Your task to perform on an android device: check out phone information Image 0: 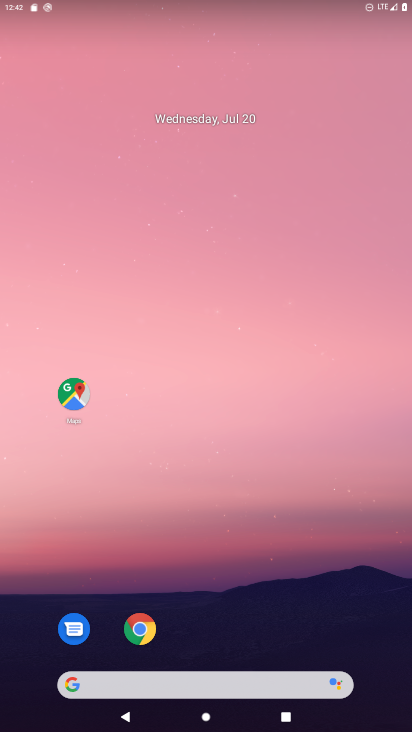
Step 0: drag from (173, 635) to (207, 207)
Your task to perform on an android device: check out phone information Image 1: 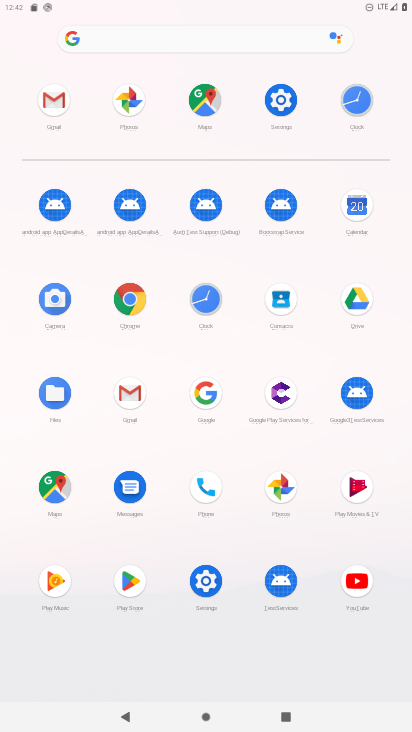
Step 1: click (204, 579)
Your task to perform on an android device: check out phone information Image 2: 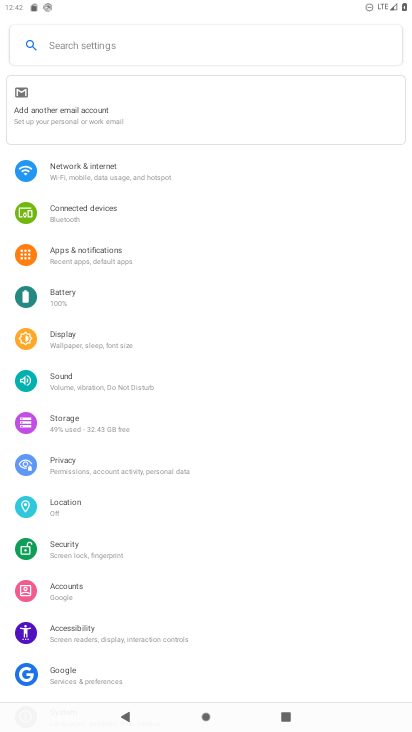
Step 2: drag from (121, 606) to (161, 22)
Your task to perform on an android device: check out phone information Image 3: 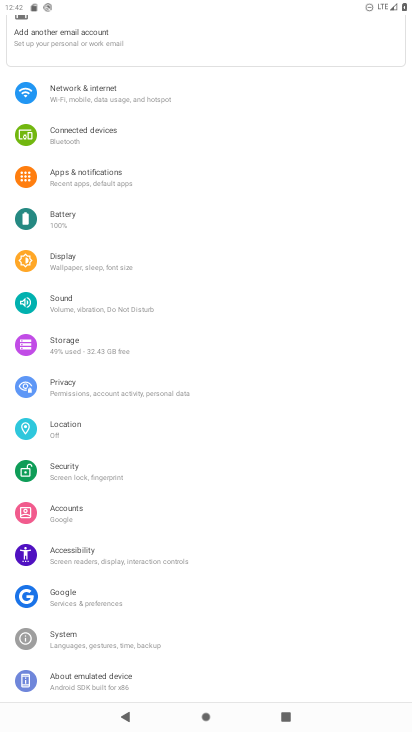
Step 3: click (84, 673)
Your task to perform on an android device: check out phone information Image 4: 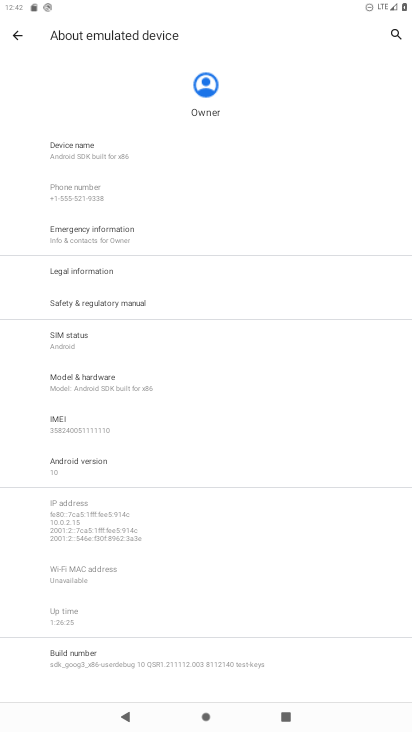
Step 4: task complete